Your task to perform on an android device: Open eBay Image 0: 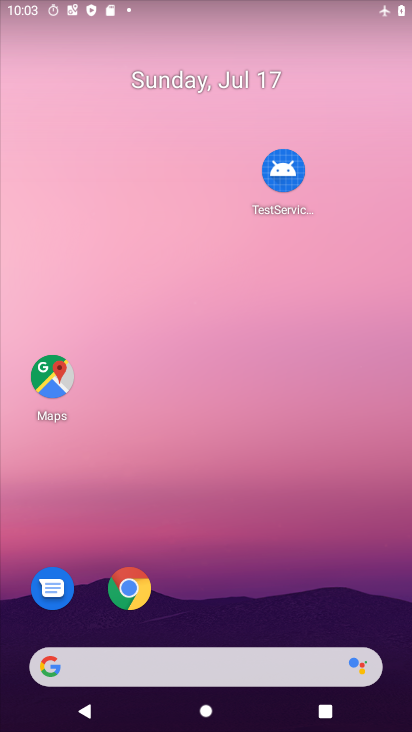
Step 0: drag from (238, 597) to (258, 213)
Your task to perform on an android device: Open eBay Image 1: 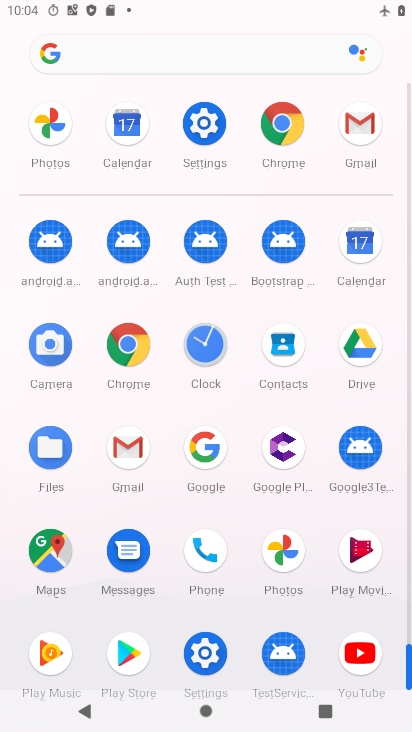
Step 1: click (284, 140)
Your task to perform on an android device: Open eBay Image 2: 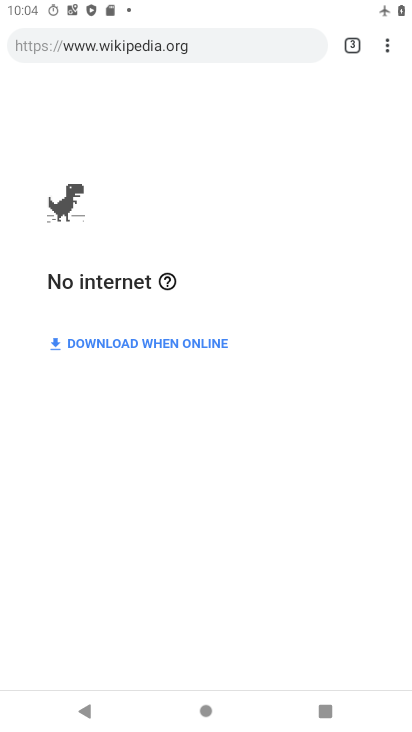
Step 2: click (289, 41)
Your task to perform on an android device: Open eBay Image 3: 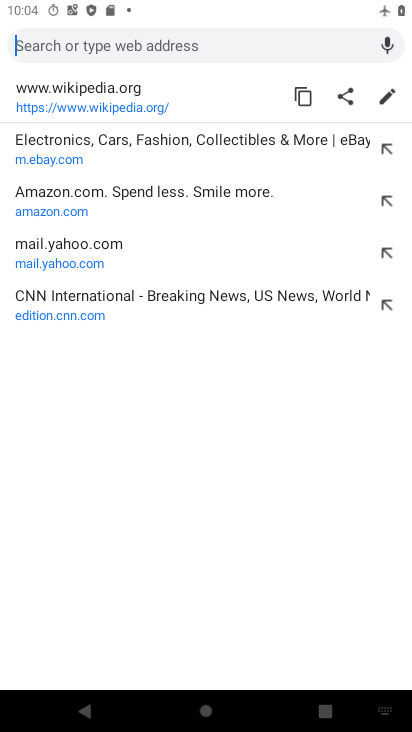
Step 3: click (148, 147)
Your task to perform on an android device: Open eBay Image 4: 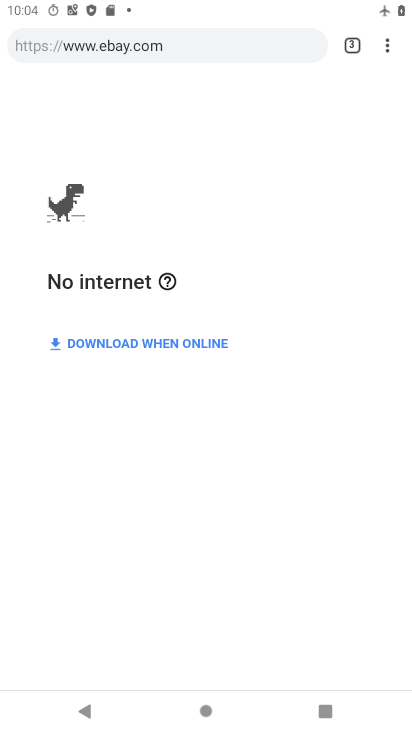
Step 4: task complete